Your task to perform on an android device: turn on the 12-hour format for clock Image 0: 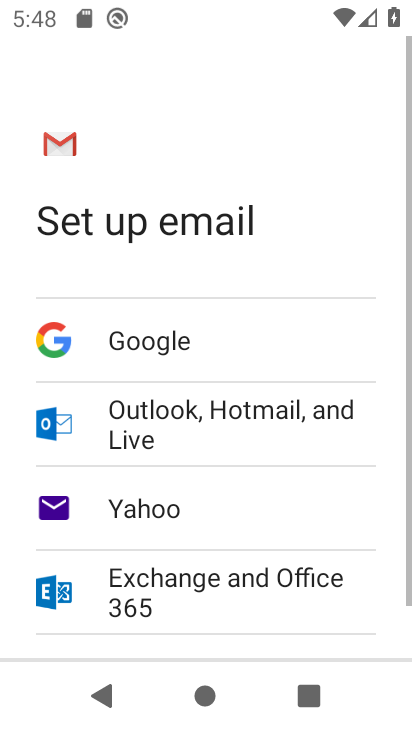
Step 0: press home button
Your task to perform on an android device: turn on the 12-hour format for clock Image 1: 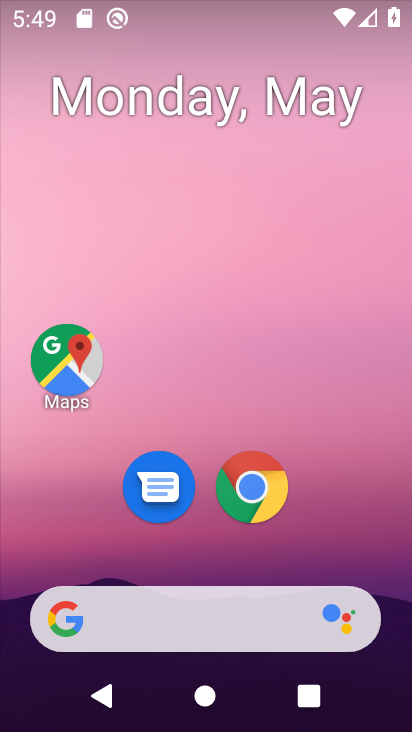
Step 1: drag from (206, 566) to (235, 85)
Your task to perform on an android device: turn on the 12-hour format for clock Image 2: 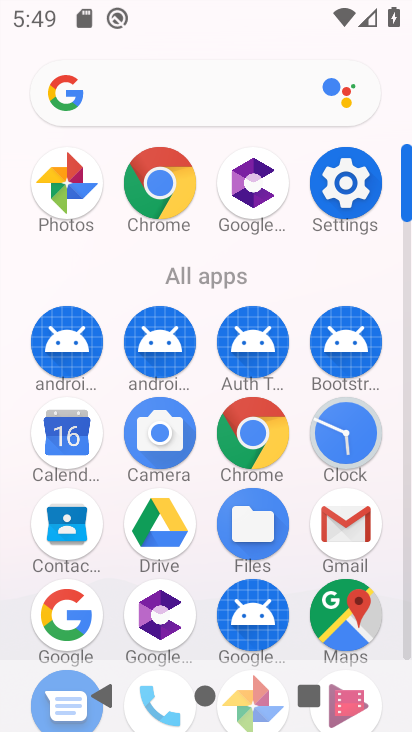
Step 2: click (345, 428)
Your task to perform on an android device: turn on the 12-hour format for clock Image 3: 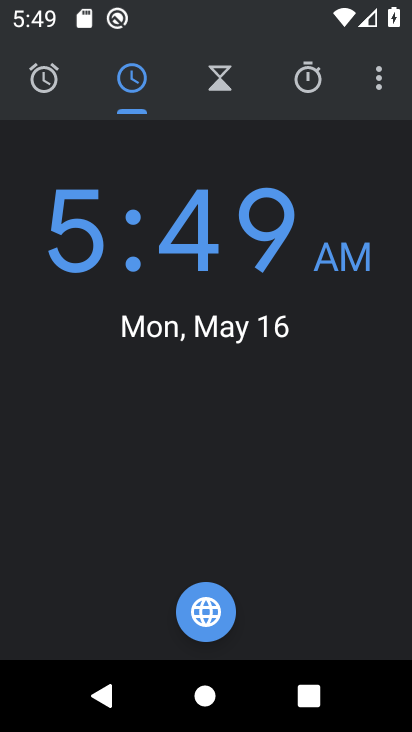
Step 3: click (374, 78)
Your task to perform on an android device: turn on the 12-hour format for clock Image 4: 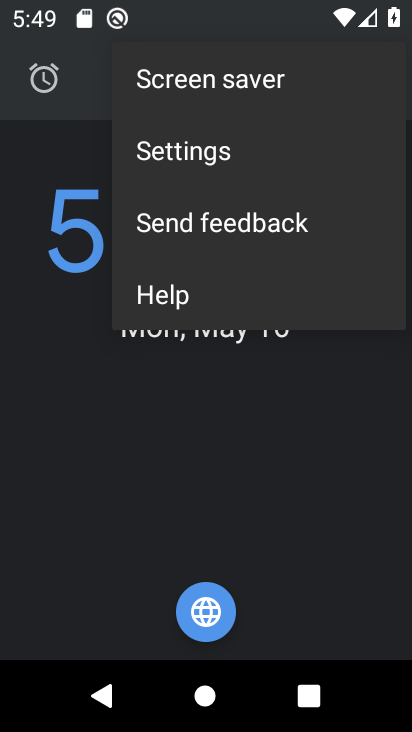
Step 4: click (253, 148)
Your task to perform on an android device: turn on the 12-hour format for clock Image 5: 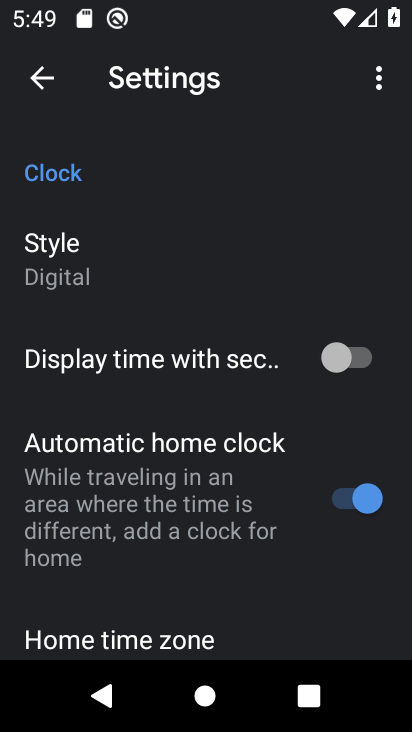
Step 5: drag from (216, 593) to (228, 231)
Your task to perform on an android device: turn on the 12-hour format for clock Image 6: 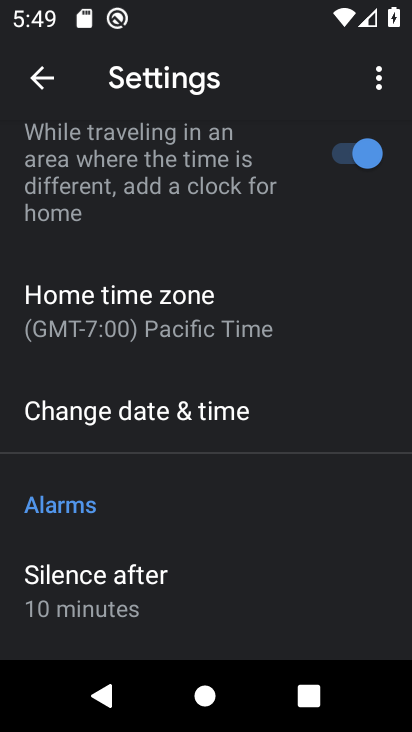
Step 6: click (237, 419)
Your task to perform on an android device: turn on the 12-hour format for clock Image 7: 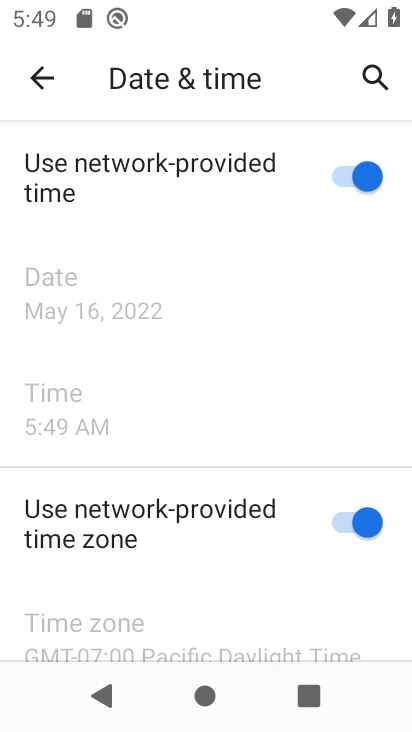
Step 7: task complete